Your task to perform on an android device: change the clock display to analog Image 0: 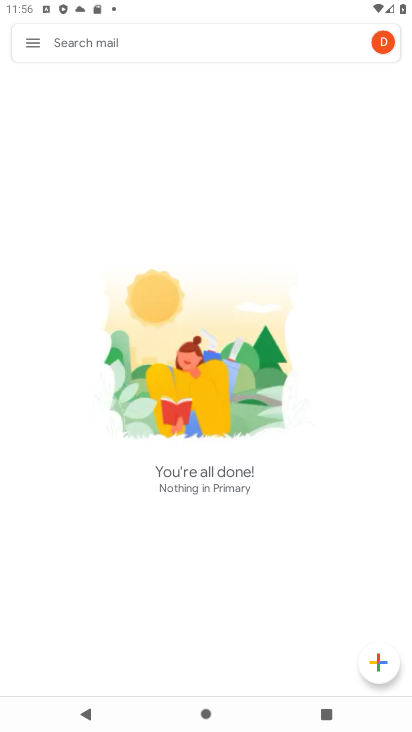
Step 0: task complete